Your task to perform on an android device: turn off picture-in-picture Image 0: 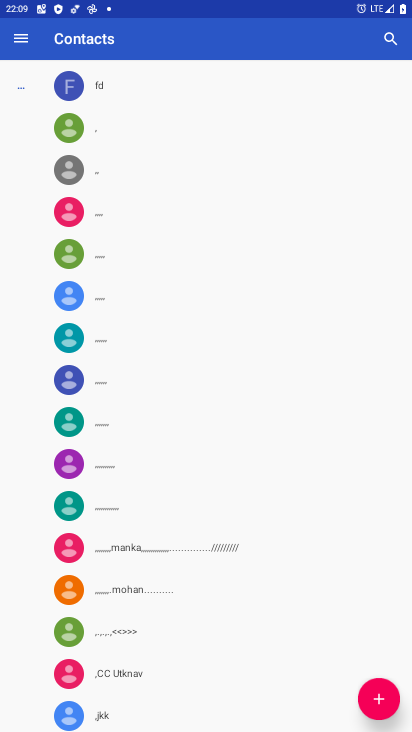
Step 0: press home button
Your task to perform on an android device: turn off picture-in-picture Image 1: 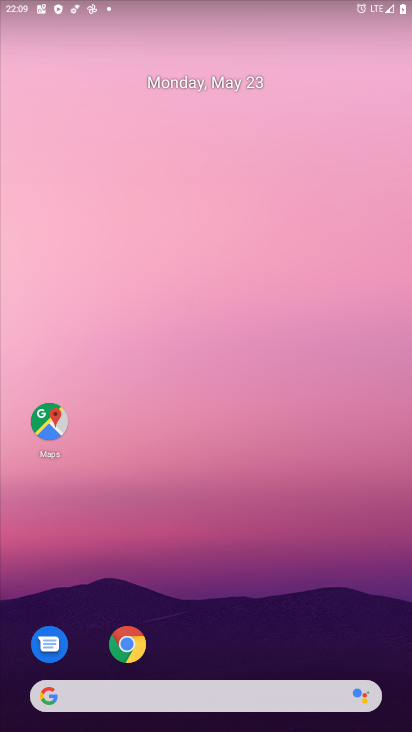
Step 1: click (130, 655)
Your task to perform on an android device: turn off picture-in-picture Image 2: 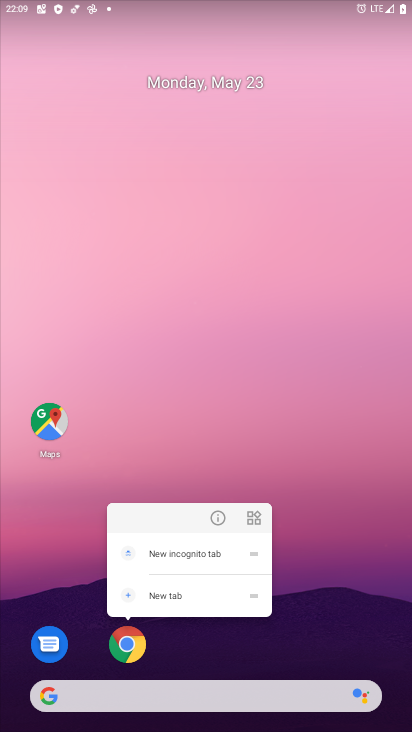
Step 2: click (214, 515)
Your task to perform on an android device: turn off picture-in-picture Image 3: 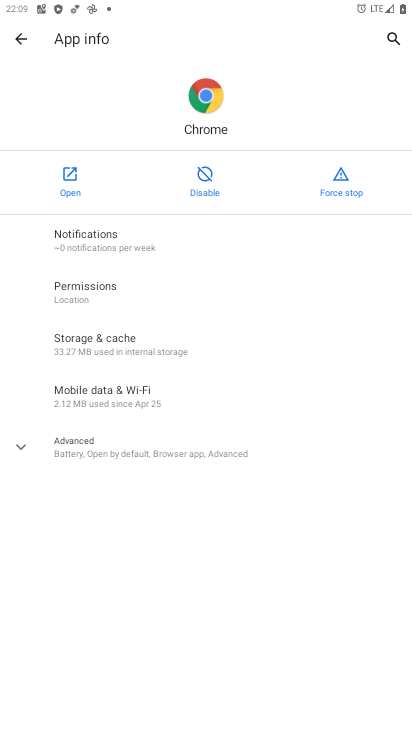
Step 3: click (225, 454)
Your task to perform on an android device: turn off picture-in-picture Image 4: 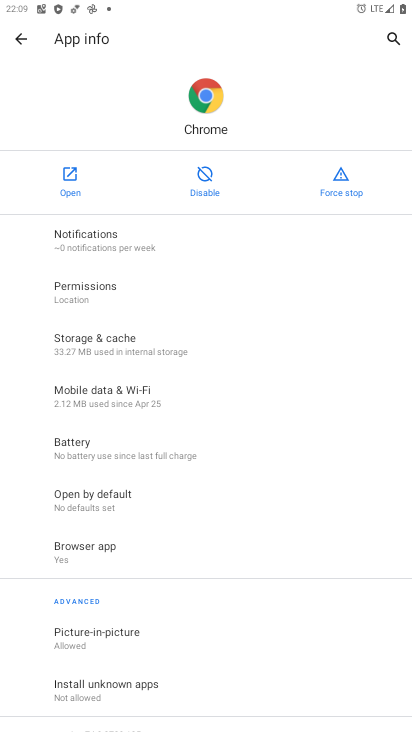
Step 4: click (149, 646)
Your task to perform on an android device: turn off picture-in-picture Image 5: 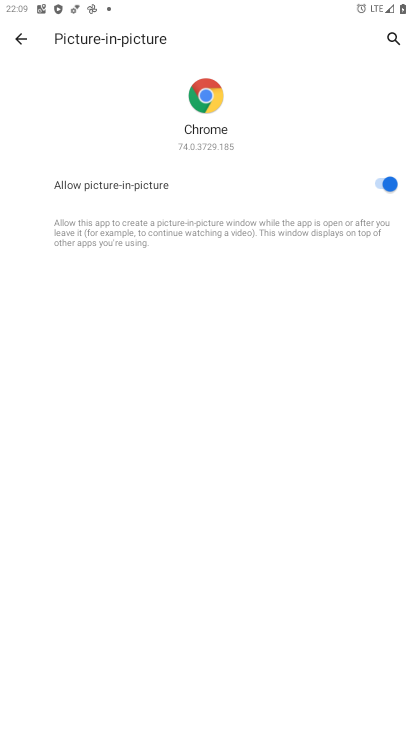
Step 5: click (382, 184)
Your task to perform on an android device: turn off picture-in-picture Image 6: 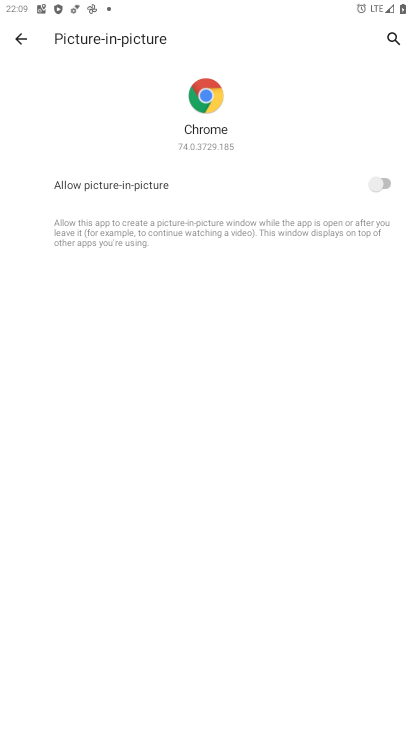
Step 6: task complete